Your task to perform on an android device: Open Chrome and go to settings Image 0: 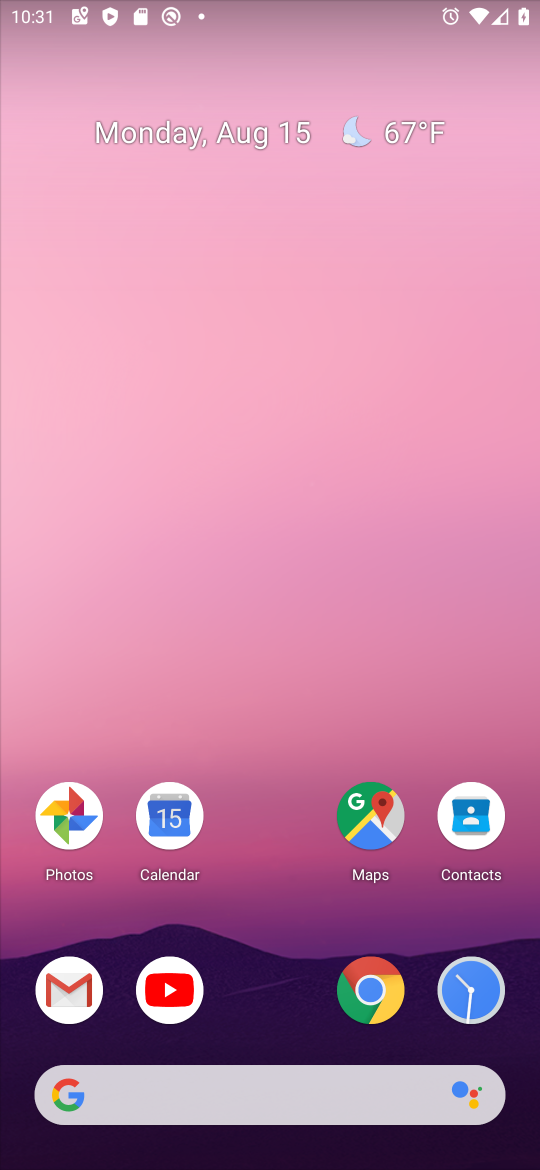
Step 0: click (375, 994)
Your task to perform on an android device: Open Chrome and go to settings Image 1: 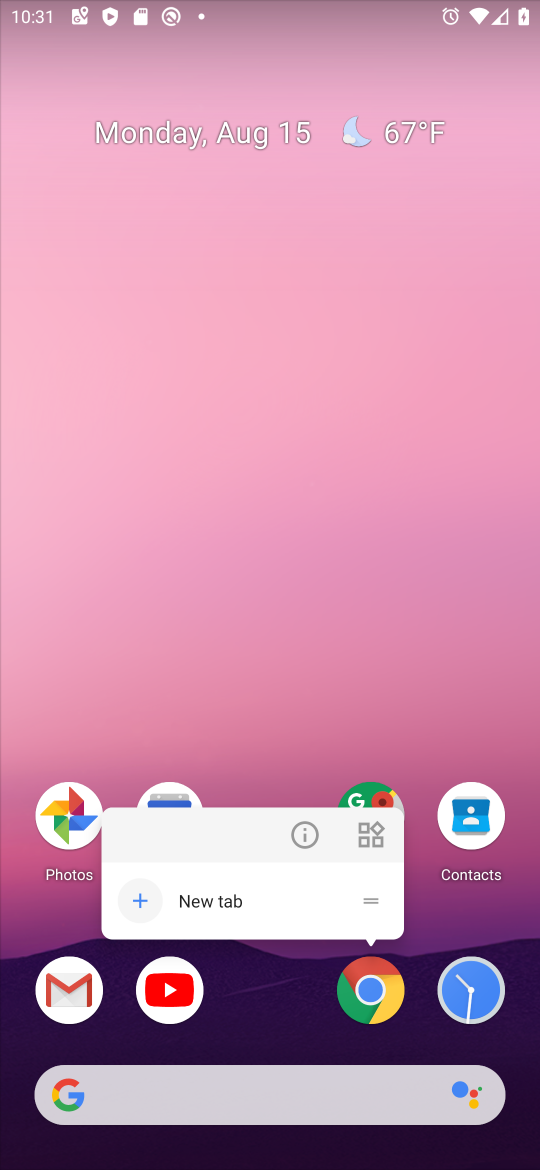
Step 1: click (367, 987)
Your task to perform on an android device: Open Chrome and go to settings Image 2: 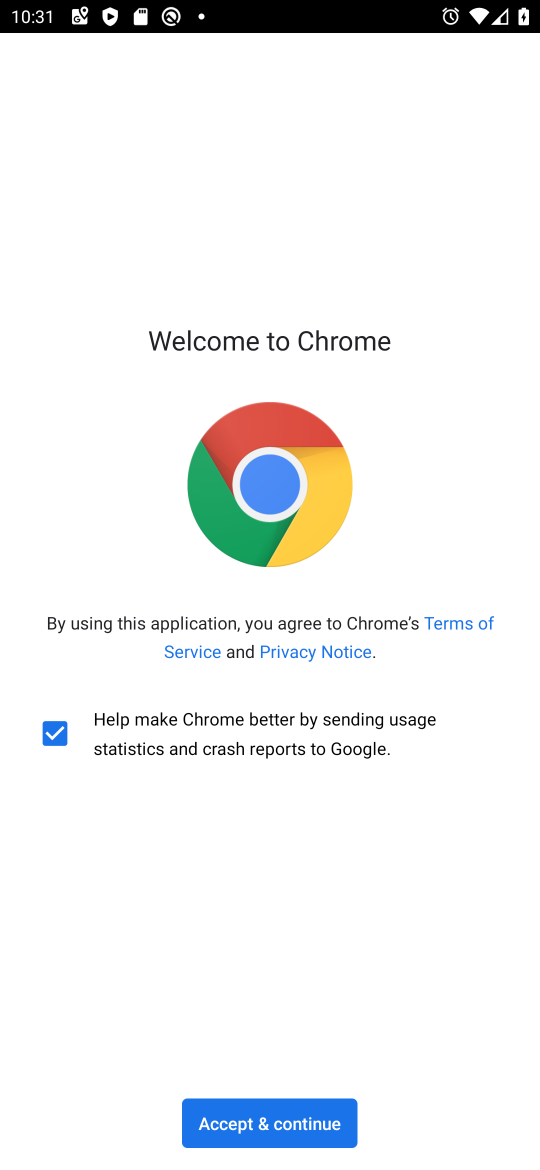
Step 2: click (260, 1110)
Your task to perform on an android device: Open Chrome and go to settings Image 3: 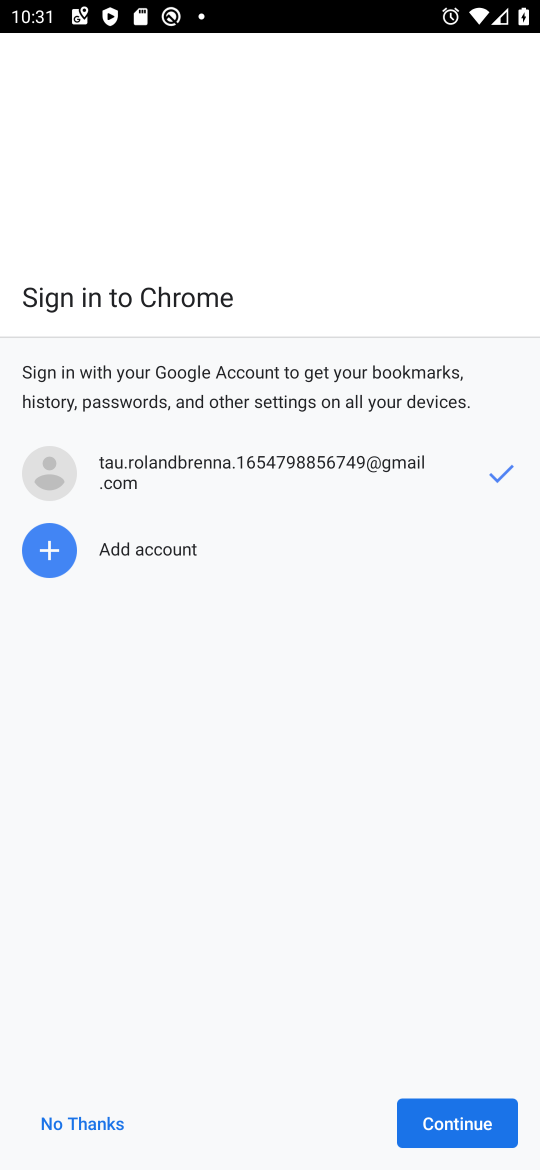
Step 3: click (450, 1124)
Your task to perform on an android device: Open Chrome and go to settings Image 4: 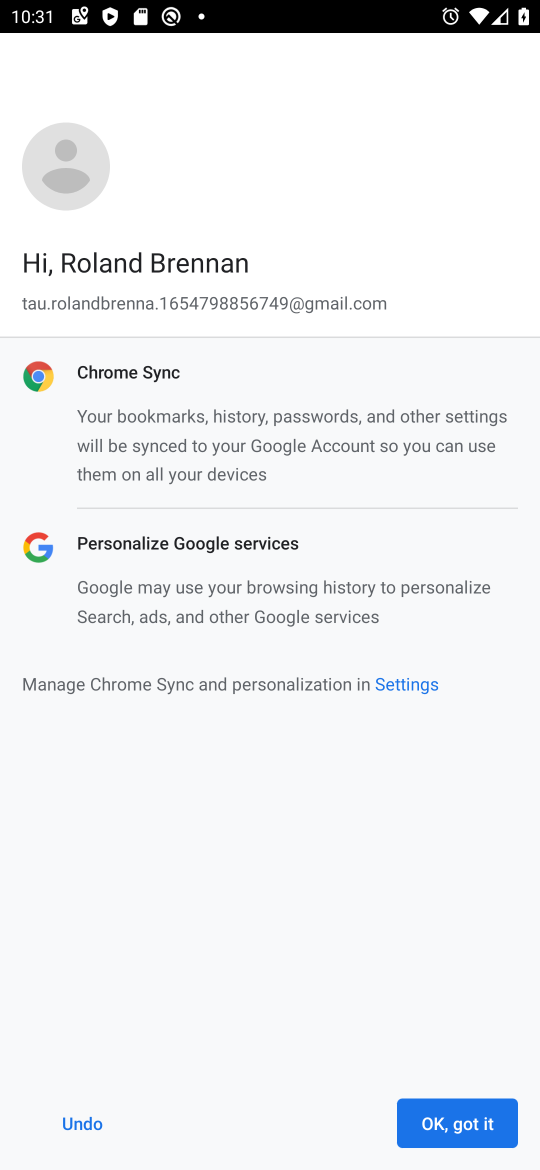
Step 4: click (450, 1124)
Your task to perform on an android device: Open Chrome and go to settings Image 5: 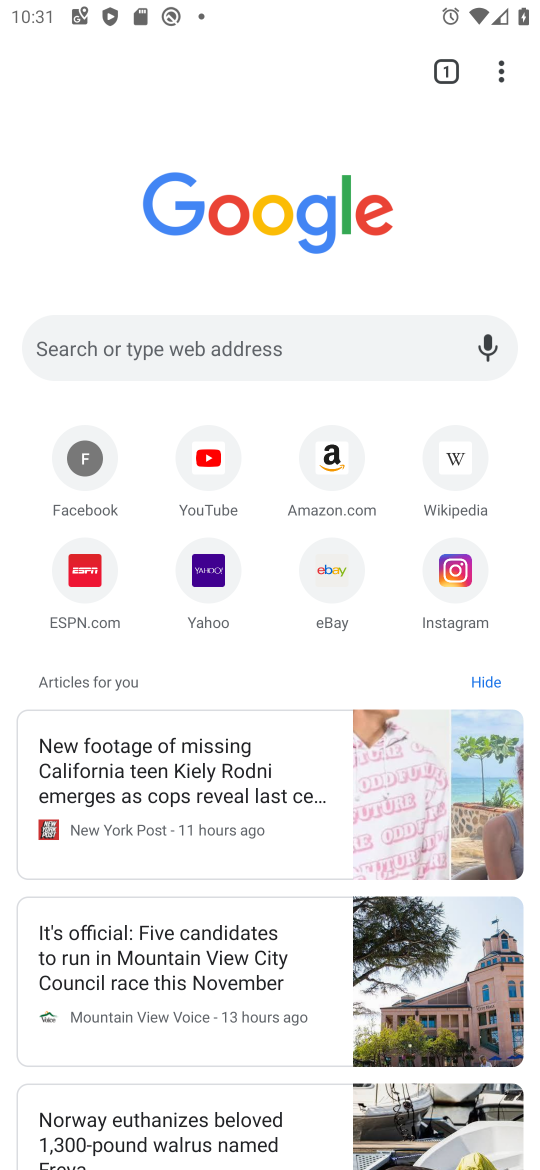
Step 5: click (501, 60)
Your task to perform on an android device: Open Chrome and go to settings Image 6: 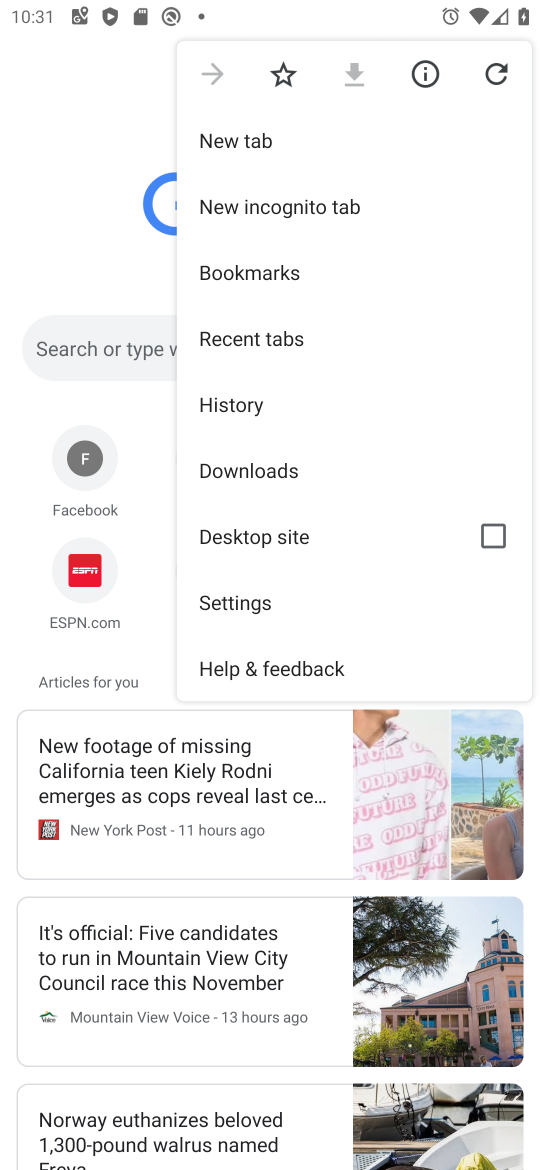
Step 6: click (242, 584)
Your task to perform on an android device: Open Chrome and go to settings Image 7: 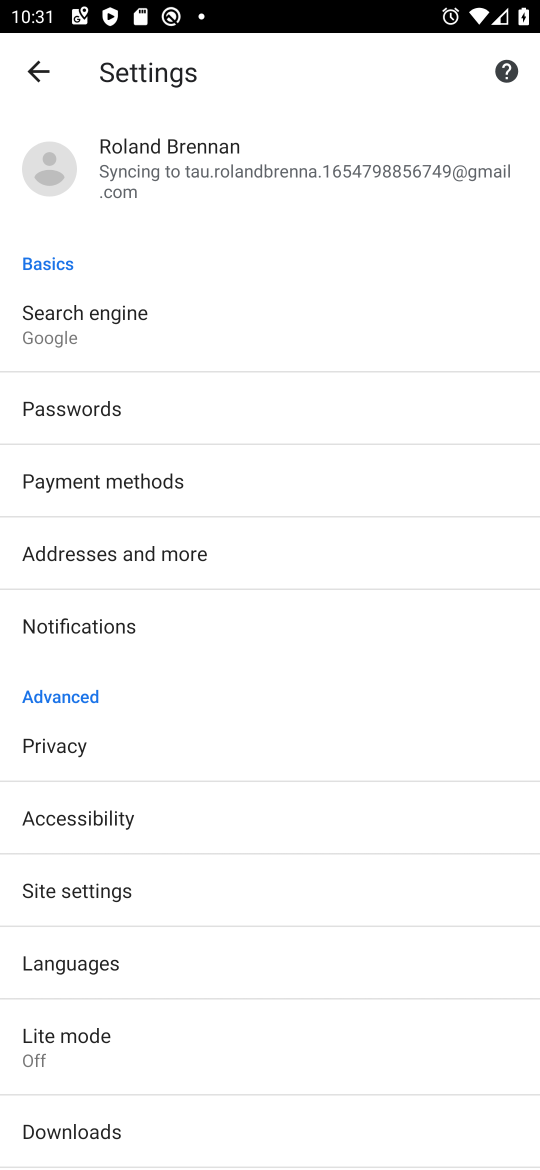
Step 7: task complete